Your task to perform on an android device: toggle notifications settings in the gmail app Image 0: 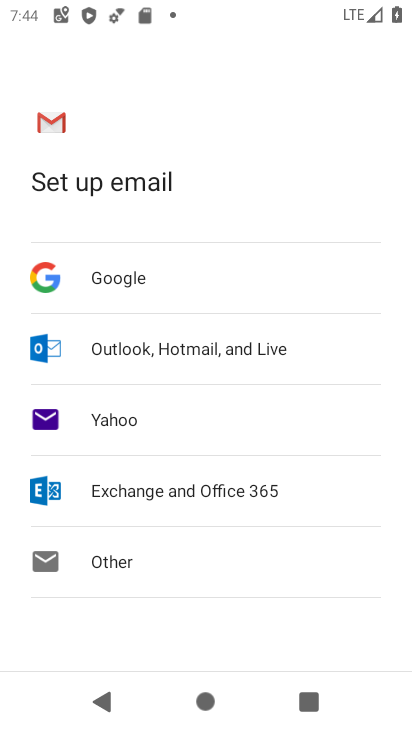
Step 0: press home button
Your task to perform on an android device: toggle notifications settings in the gmail app Image 1: 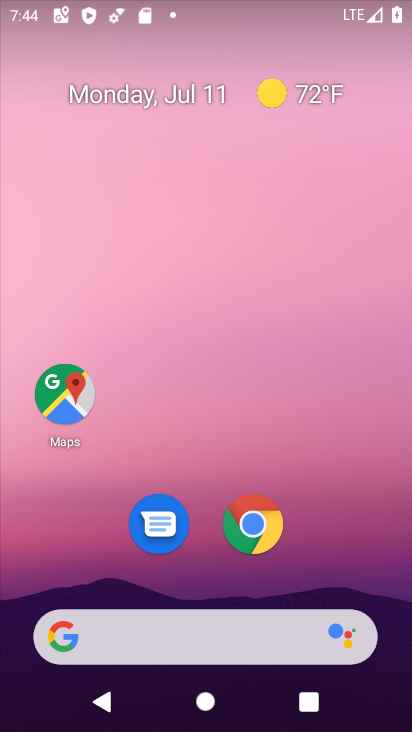
Step 1: drag from (298, 537) to (328, 48)
Your task to perform on an android device: toggle notifications settings in the gmail app Image 2: 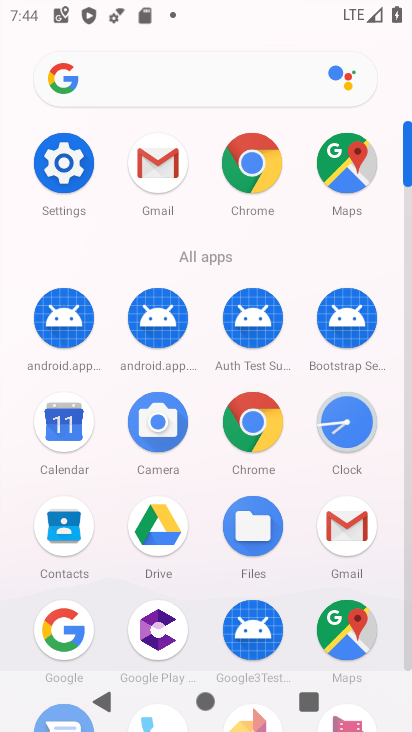
Step 2: click (159, 159)
Your task to perform on an android device: toggle notifications settings in the gmail app Image 3: 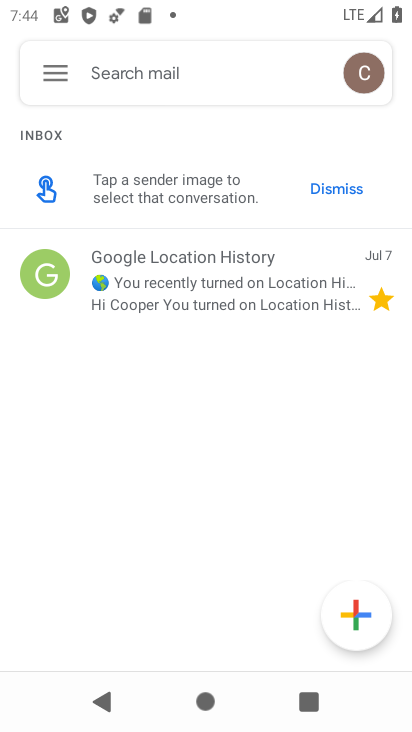
Step 3: click (65, 73)
Your task to perform on an android device: toggle notifications settings in the gmail app Image 4: 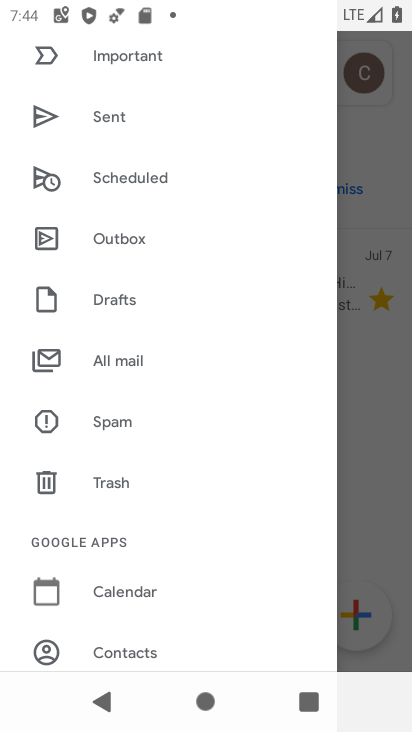
Step 4: drag from (149, 619) to (186, 198)
Your task to perform on an android device: toggle notifications settings in the gmail app Image 5: 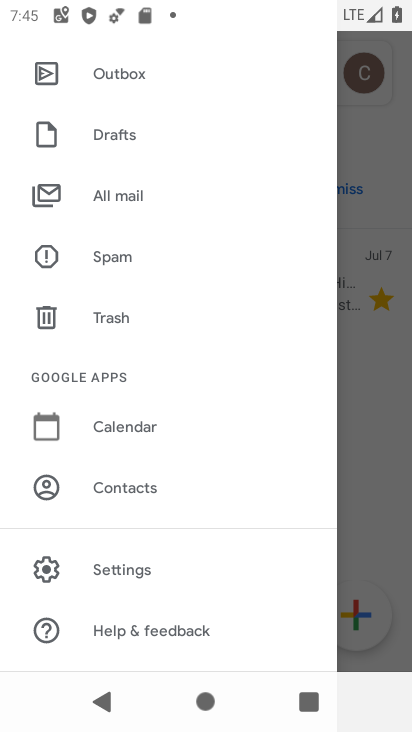
Step 5: click (129, 565)
Your task to perform on an android device: toggle notifications settings in the gmail app Image 6: 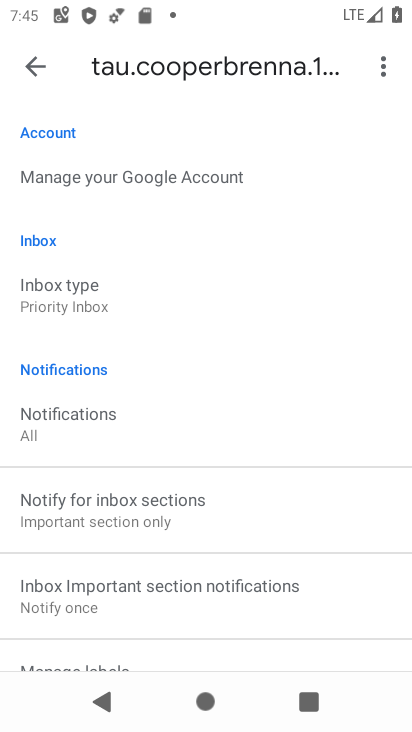
Step 6: drag from (213, 616) to (229, 312)
Your task to perform on an android device: toggle notifications settings in the gmail app Image 7: 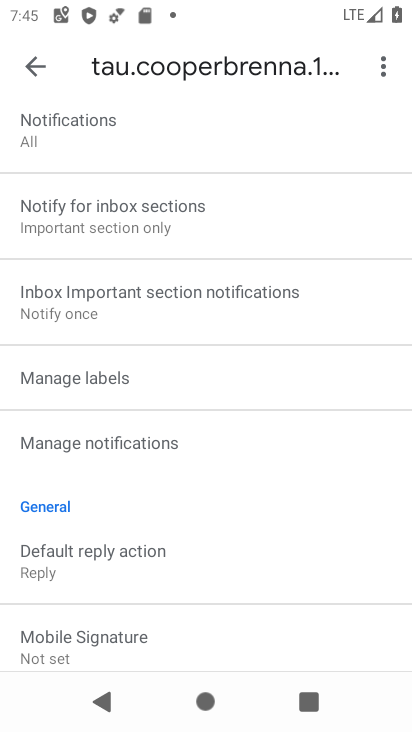
Step 7: click (194, 442)
Your task to perform on an android device: toggle notifications settings in the gmail app Image 8: 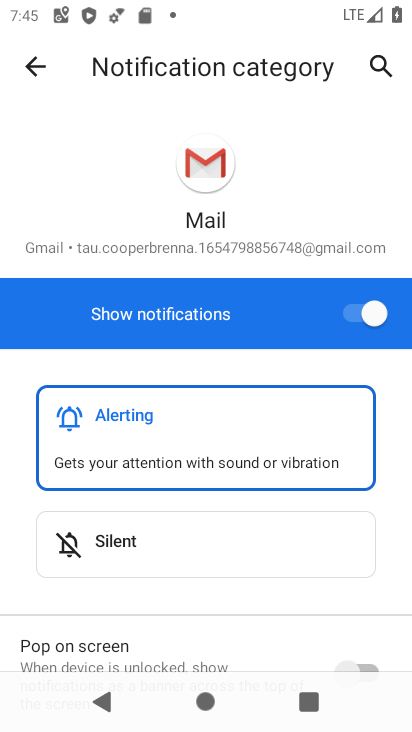
Step 8: click (359, 322)
Your task to perform on an android device: toggle notifications settings in the gmail app Image 9: 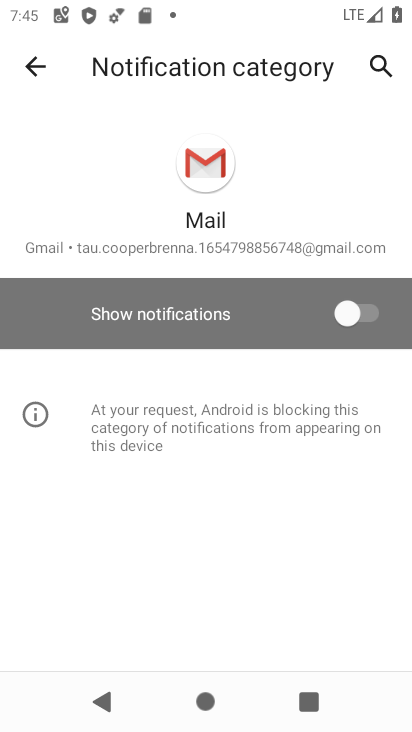
Step 9: task complete